Your task to perform on an android device: Open Maps and search for coffee Image 0: 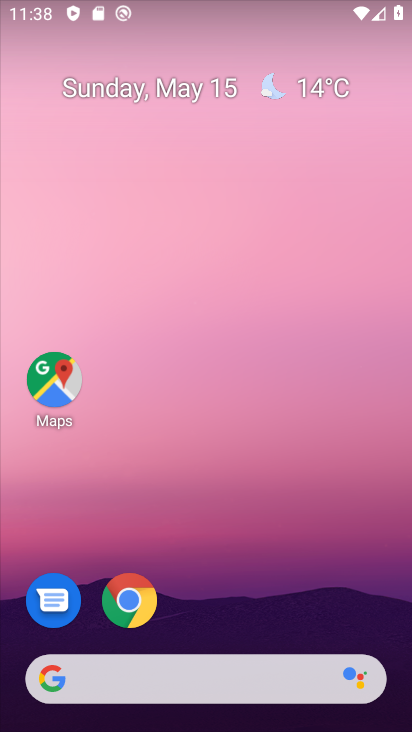
Step 0: click (51, 382)
Your task to perform on an android device: Open Maps and search for coffee Image 1: 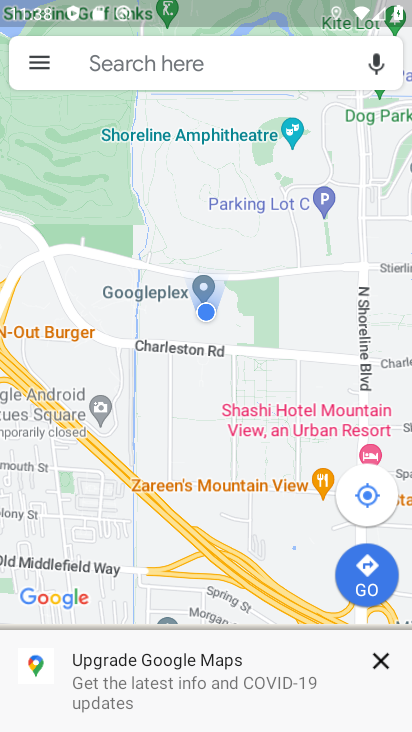
Step 1: click (151, 65)
Your task to perform on an android device: Open Maps and search for coffee Image 2: 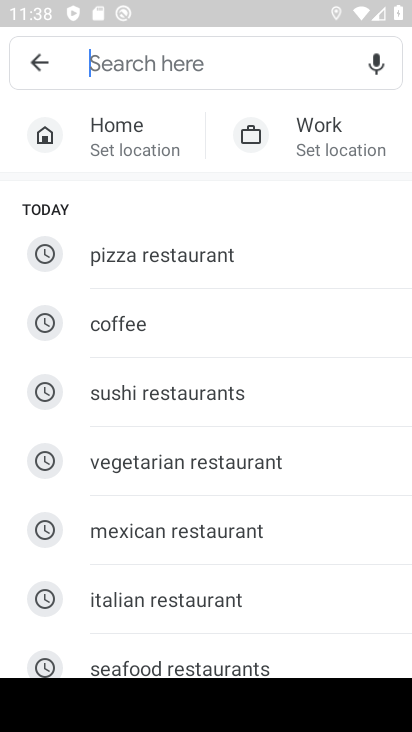
Step 2: type "coffee"
Your task to perform on an android device: Open Maps and search for coffee Image 3: 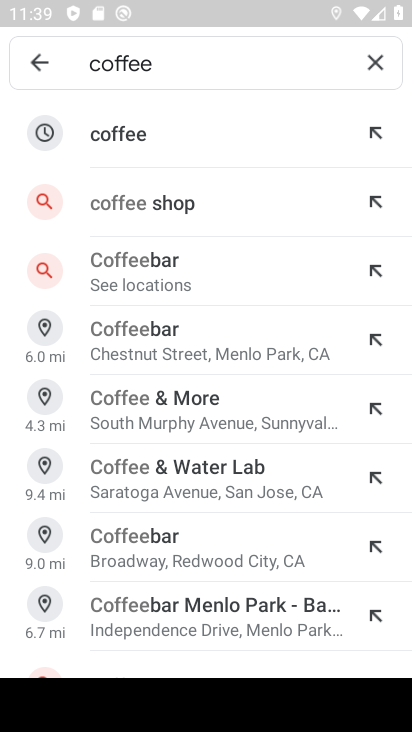
Step 3: click (125, 123)
Your task to perform on an android device: Open Maps and search for coffee Image 4: 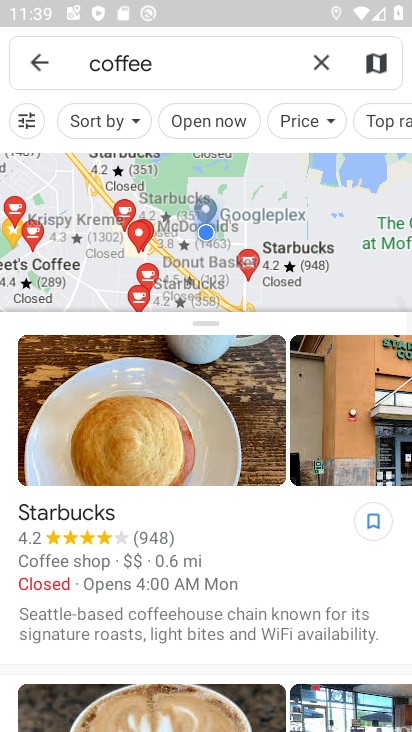
Step 4: task complete